Your task to perform on an android device: Find coffee shops on Maps Image 0: 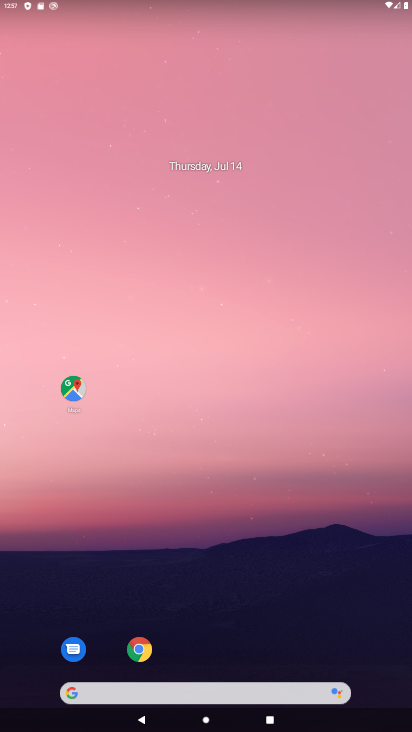
Step 0: drag from (276, 611) to (307, 5)
Your task to perform on an android device: Find coffee shops on Maps Image 1: 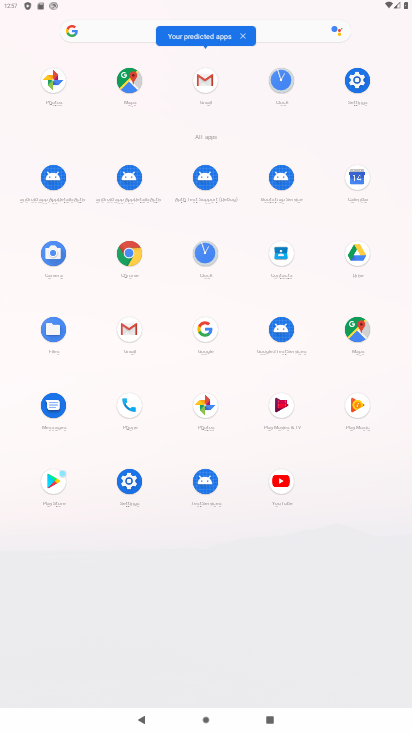
Step 1: click (370, 332)
Your task to perform on an android device: Find coffee shops on Maps Image 2: 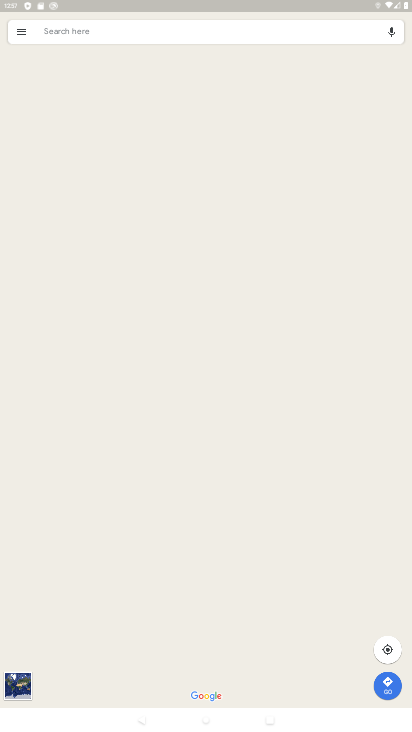
Step 2: click (139, 31)
Your task to perform on an android device: Find coffee shops on Maps Image 3: 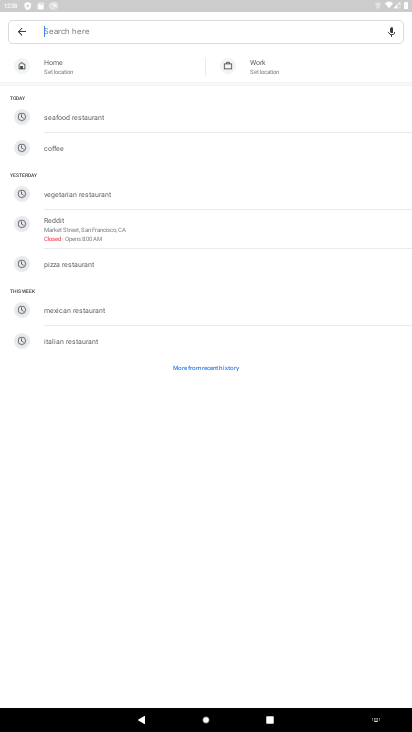
Step 3: type " coffee shops"
Your task to perform on an android device: Find coffee shops on Maps Image 4: 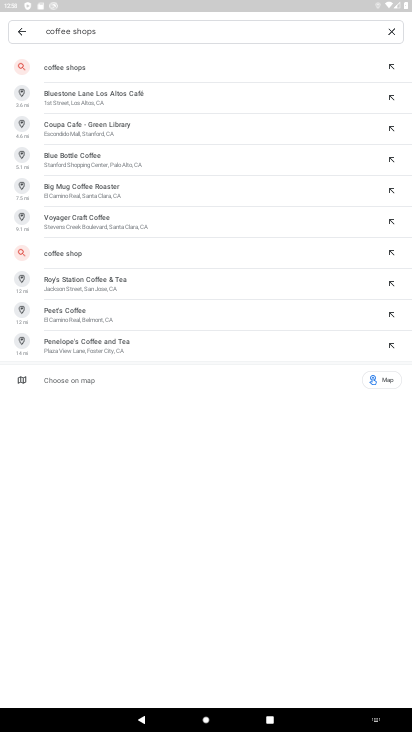
Step 4: press enter
Your task to perform on an android device: Find coffee shops on Maps Image 5: 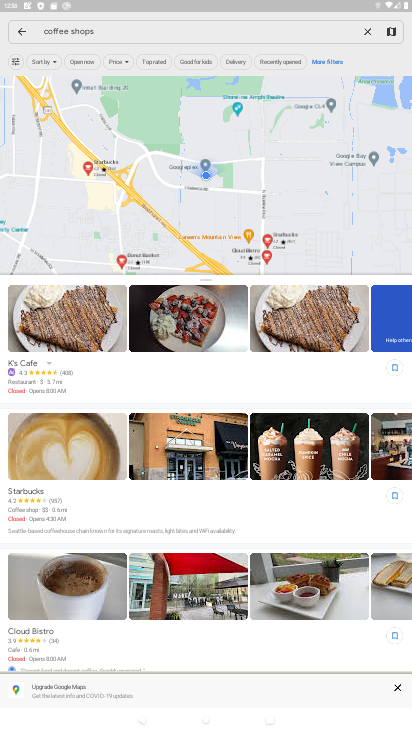
Step 5: task complete